Your task to perform on an android device: Do I have any events this weekend? Image 0: 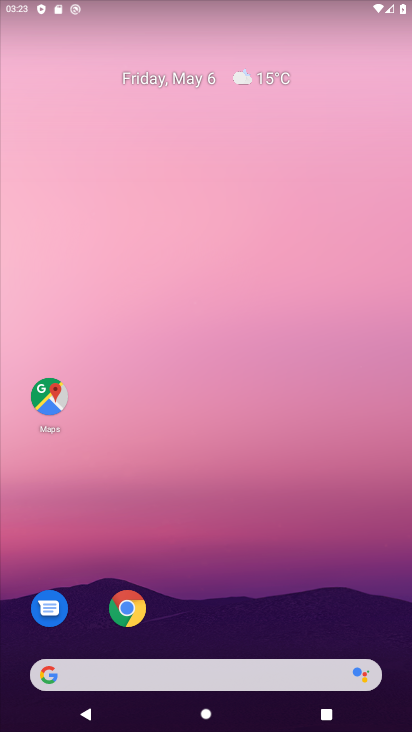
Step 0: drag from (195, 660) to (160, 54)
Your task to perform on an android device: Do I have any events this weekend? Image 1: 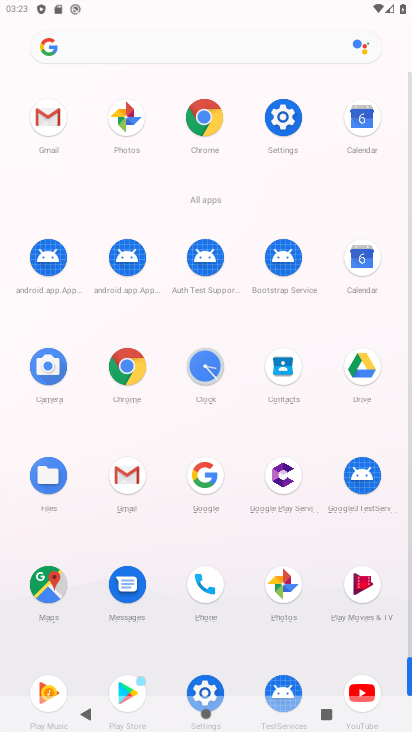
Step 1: click (361, 267)
Your task to perform on an android device: Do I have any events this weekend? Image 2: 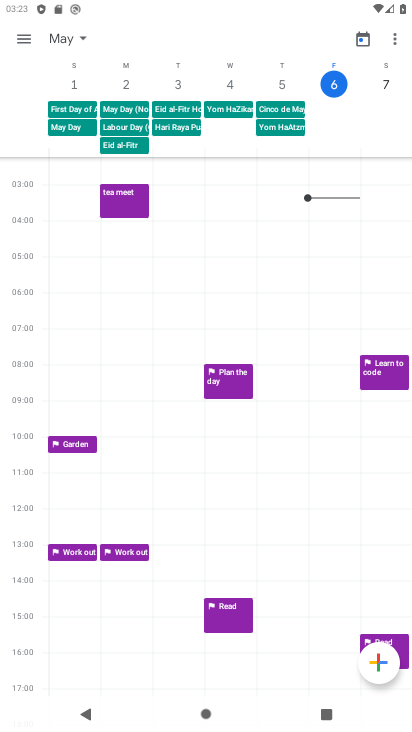
Step 2: task complete